Your task to perform on an android device: open device folders in google photos Image 0: 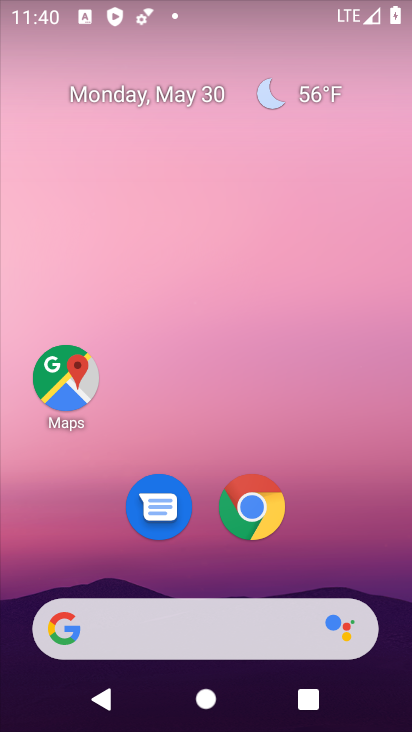
Step 0: drag from (389, 625) to (315, 86)
Your task to perform on an android device: open device folders in google photos Image 1: 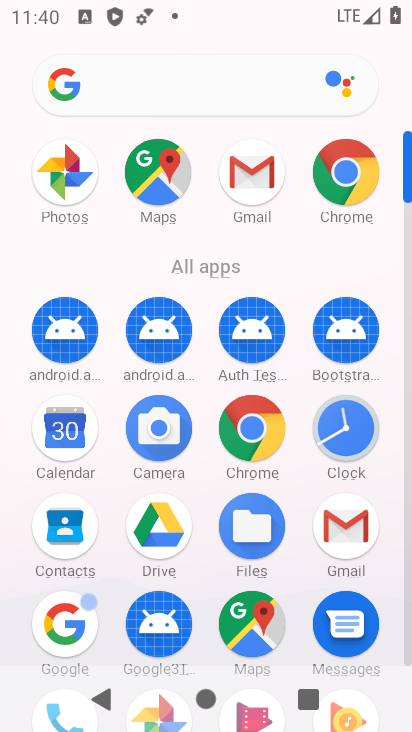
Step 1: drag from (213, 635) to (179, 220)
Your task to perform on an android device: open device folders in google photos Image 2: 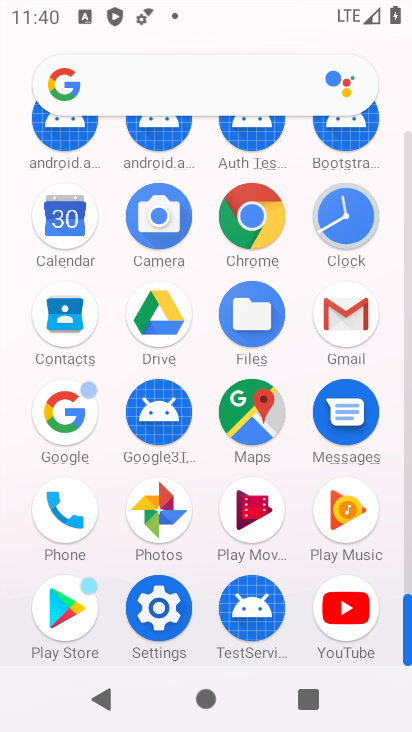
Step 2: click (142, 507)
Your task to perform on an android device: open device folders in google photos Image 3: 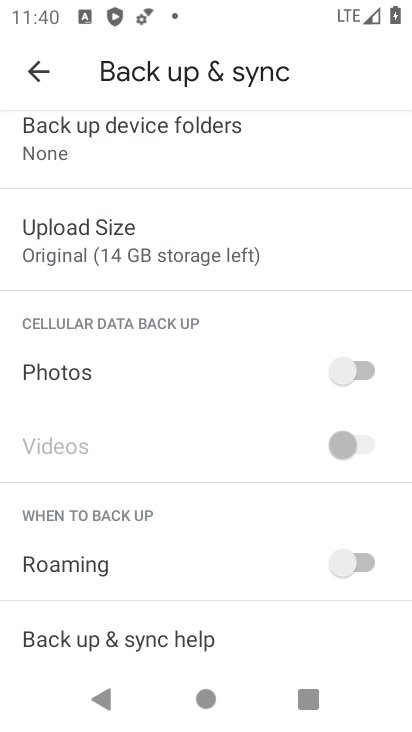
Step 3: press back button
Your task to perform on an android device: open device folders in google photos Image 4: 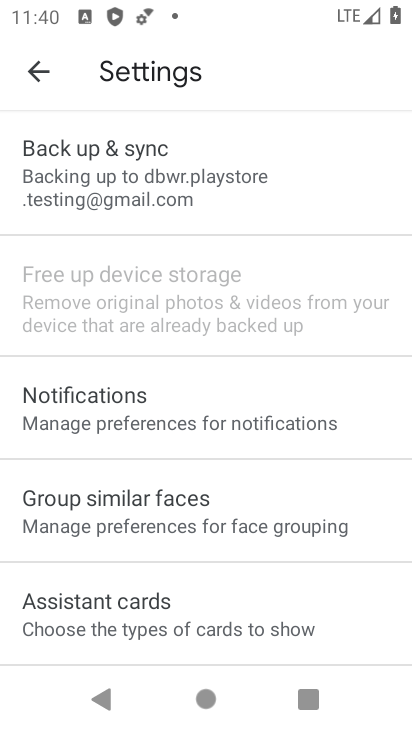
Step 4: press back button
Your task to perform on an android device: open device folders in google photos Image 5: 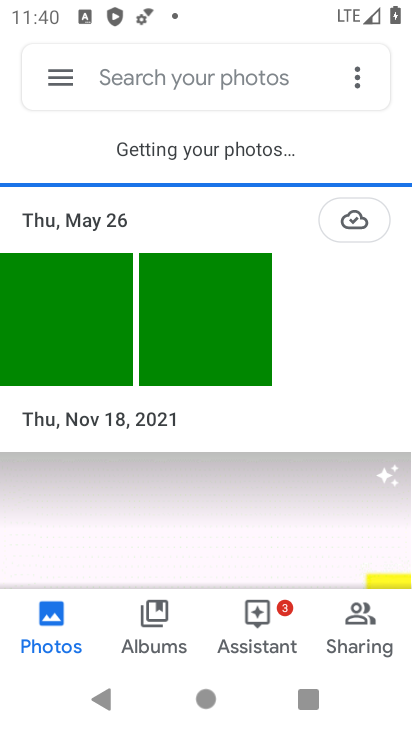
Step 5: click (73, 69)
Your task to perform on an android device: open device folders in google photos Image 6: 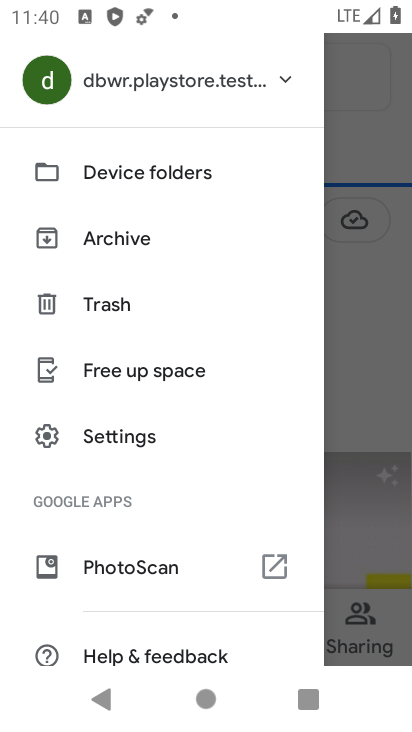
Step 6: click (118, 182)
Your task to perform on an android device: open device folders in google photos Image 7: 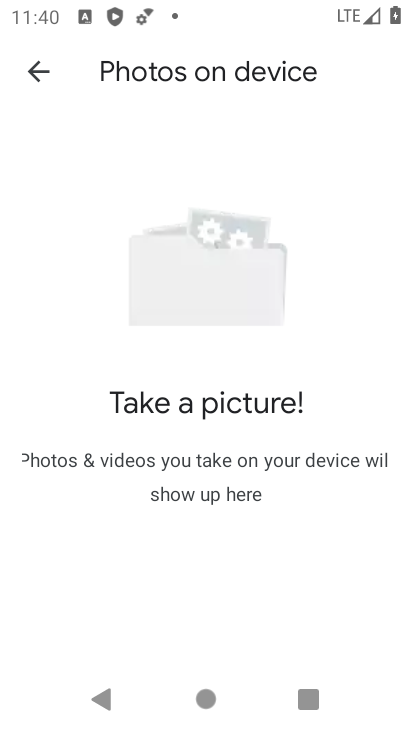
Step 7: task complete